Your task to perform on an android device: turn off airplane mode Image 0: 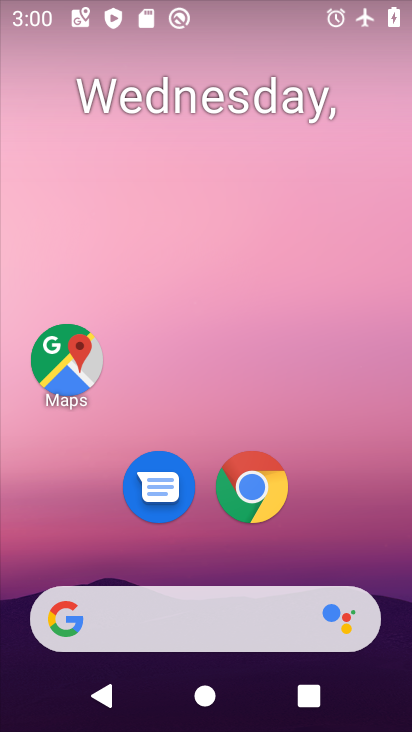
Step 0: drag from (380, 558) to (373, 274)
Your task to perform on an android device: turn off airplane mode Image 1: 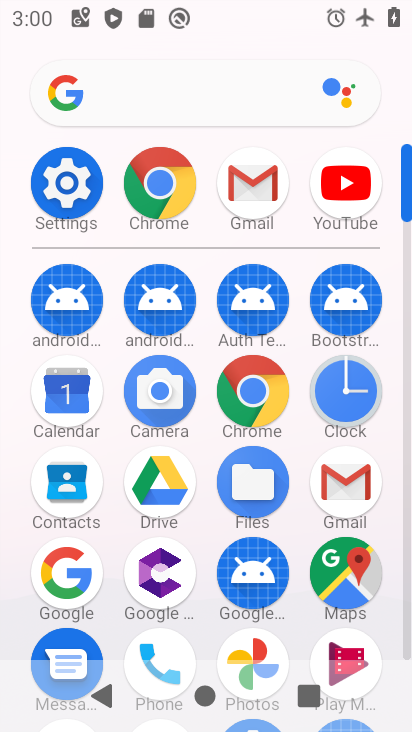
Step 1: click (84, 197)
Your task to perform on an android device: turn off airplane mode Image 2: 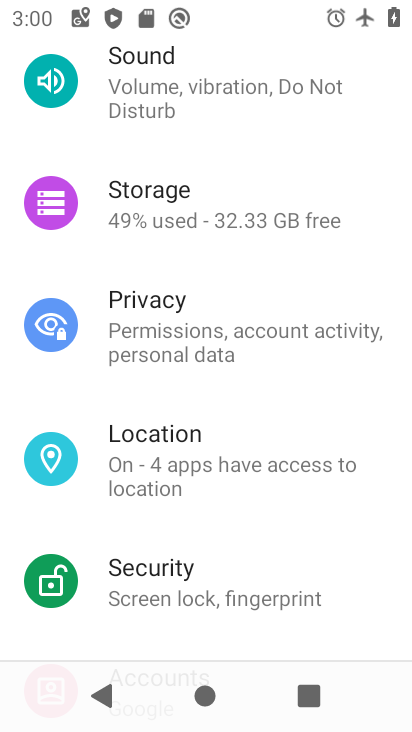
Step 2: drag from (361, 225) to (363, 324)
Your task to perform on an android device: turn off airplane mode Image 3: 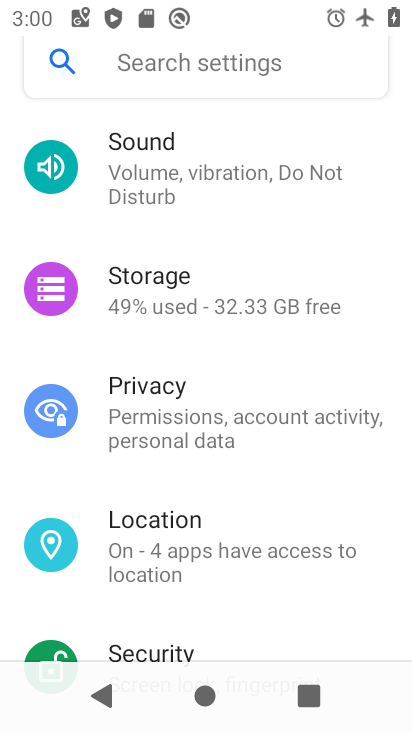
Step 3: drag from (332, 255) to (348, 356)
Your task to perform on an android device: turn off airplane mode Image 4: 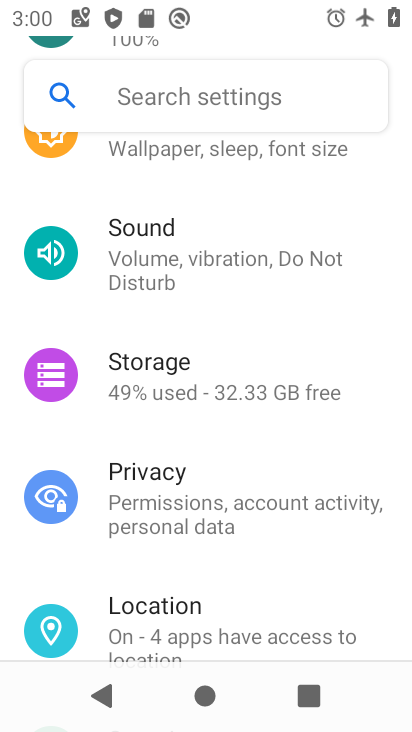
Step 4: drag from (372, 210) to (361, 331)
Your task to perform on an android device: turn off airplane mode Image 5: 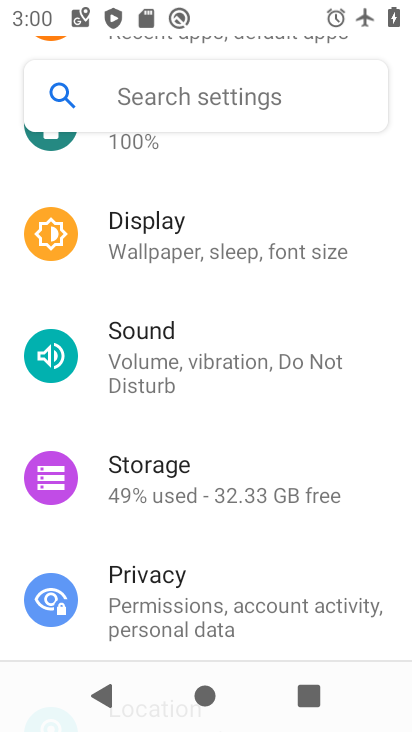
Step 5: drag from (354, 175) to (356, 278)
Your task to perform on an android device: turn off airplane mode Image 6: 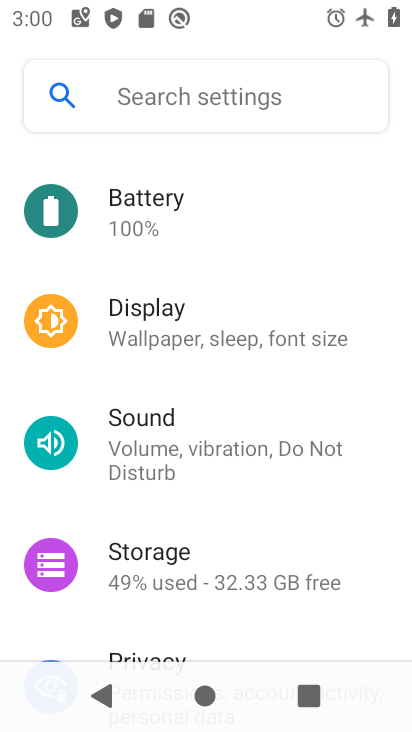
Step 6: drag from (360, 198) to (364, 311)
Your task to perform on an android device: turn off airplane mode Image 7: 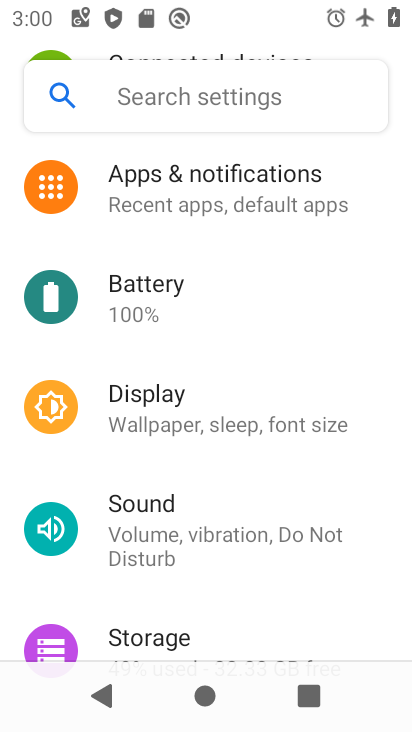
Step 7: drag from (346, 262) to (344, 387)
Your task to perform on an android device: turn off airplane mode Image 8: 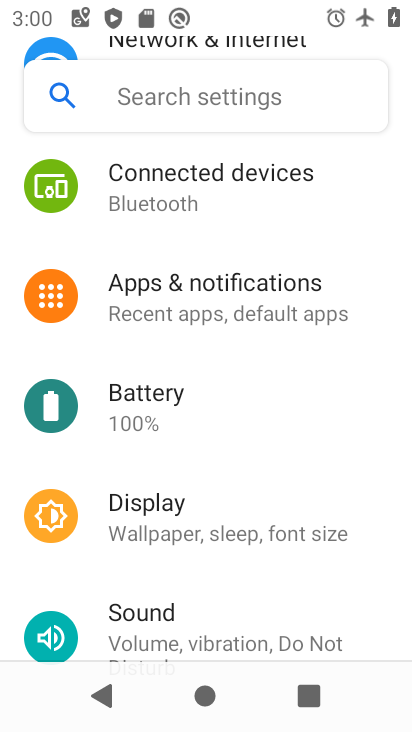
Step 8: drag from (343, 225) to (361, 376)
Your task to perform on an android device: turn off airplane mode Image 9: 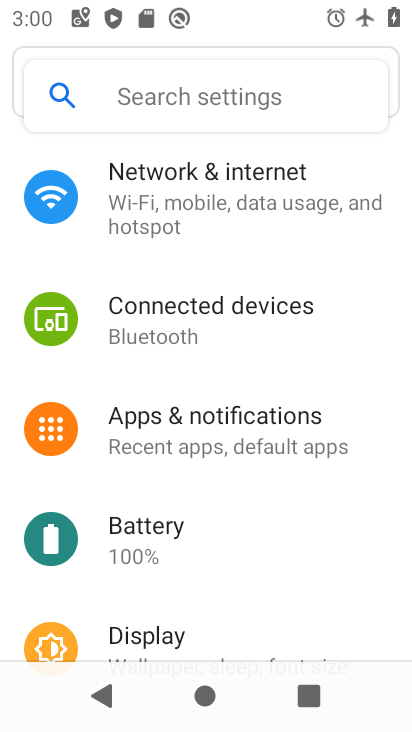
Step 9: drag from (357, 249) to (361, 369)
Your task to perform on an android device: turn off airplane mode Image 10: 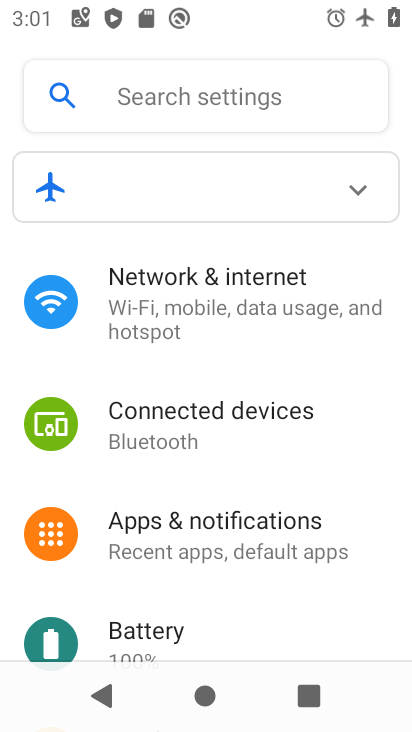
Step 10: click (318, 296)
Your task to perform on an android device: turn off airplane mode Image 11: 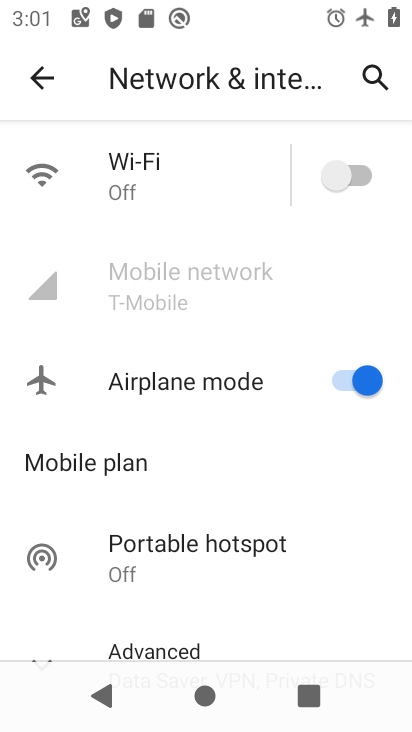
Step 11: click (344, 376)
Your task to perform on an android device: turn off airplane mode Image 12: 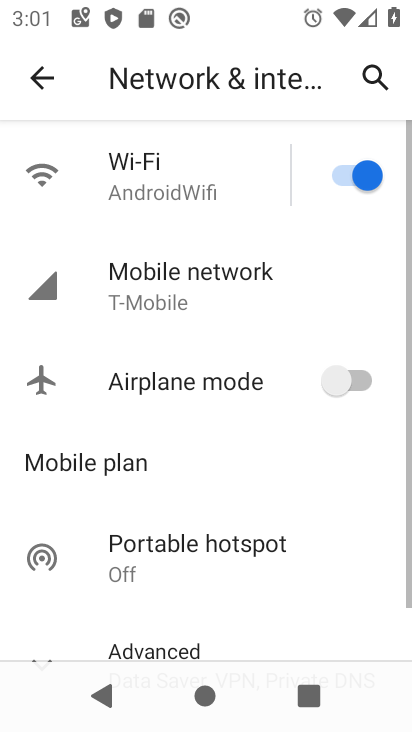
Step 12: task complete